Your task to perform on an android device: What's on my calendar today? Image 0: 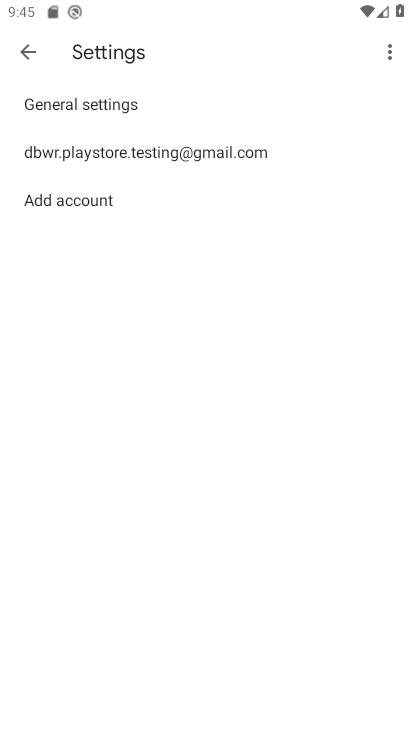
Step 0: press back button
Your task to perform on an android device: What's on my calendar today? Image 1: 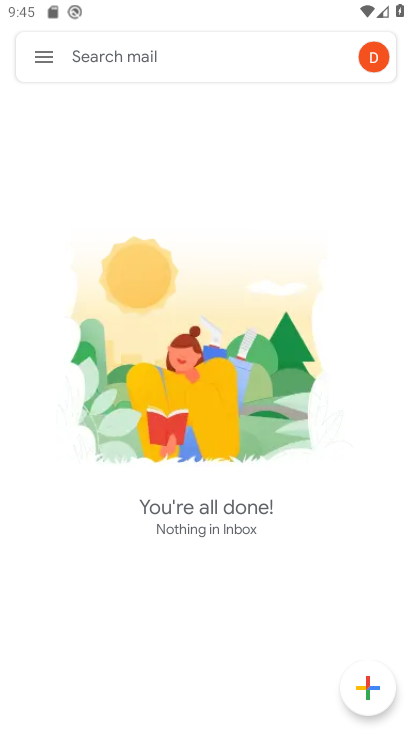
Step 1: press back button
Your task to perform on an android device: What's on my calendar today? Image 2: 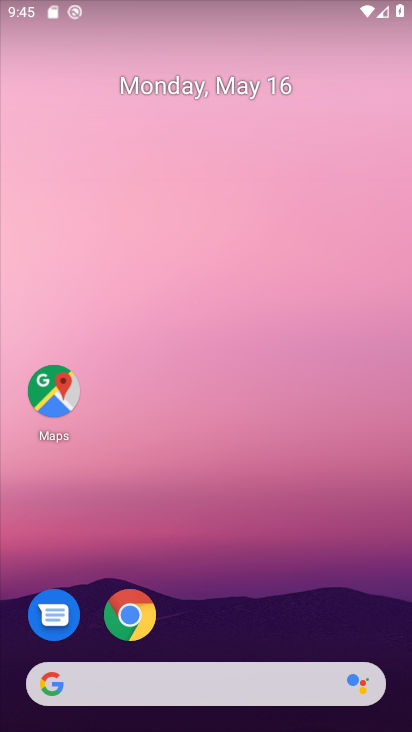
Step 2: drag from (227, 494) to (231, 40)
Your task to perform on an android device: What's on my calendar today? Image 3: 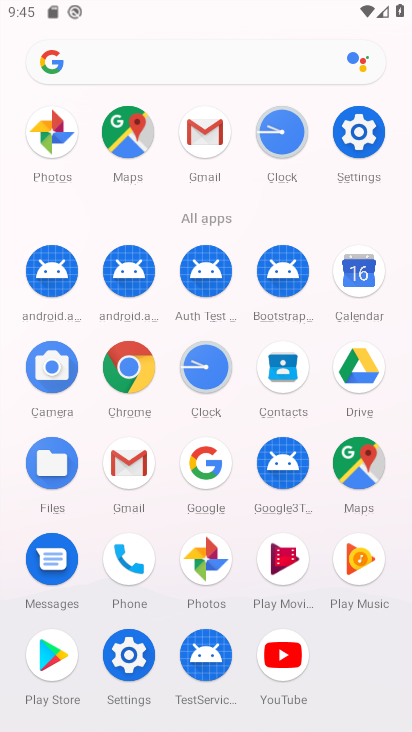
Step 3: drag from (7, 580) to (30, 253)
Your task to perform on an android device: What's on my calendar today? Image 4: 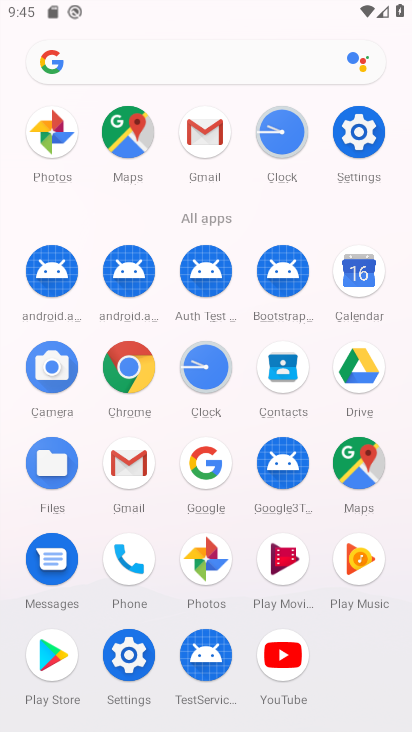
Step 4: click (355, 260)
Your task to perform on an android device: What's on my calendar today? Image 5: 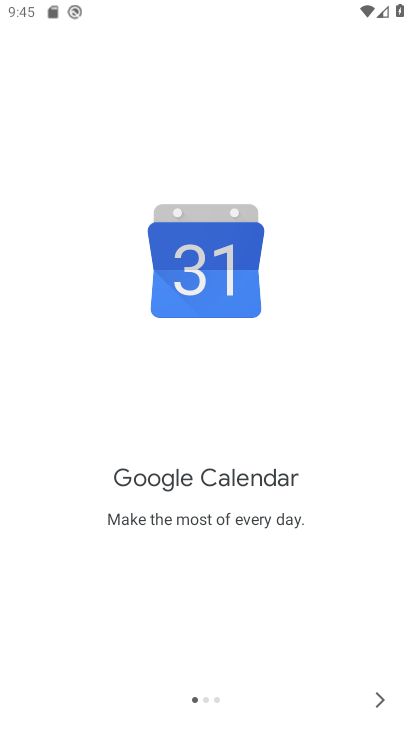
Step 5: click (370, 690)
Your task to perform on an android device: What's on my calendar today? Image 6: 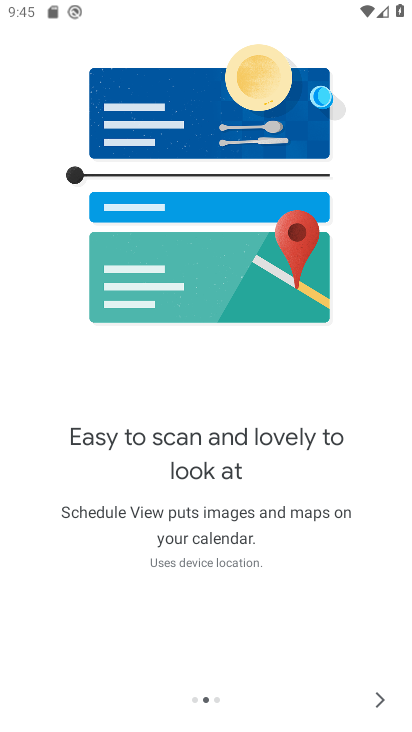
Step 6: click (377, 695)
Your task to perform on an android device: What's on my calendar today? Image 7: 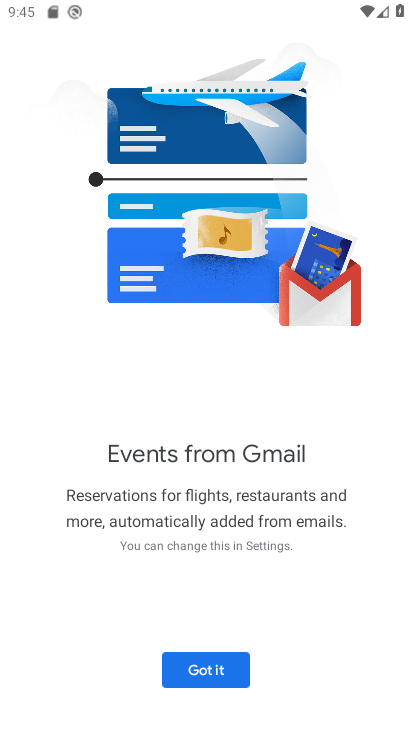
Step 7: click (205, 673)
Your task to perform on an android device: What's on my calendar today? Image 8: 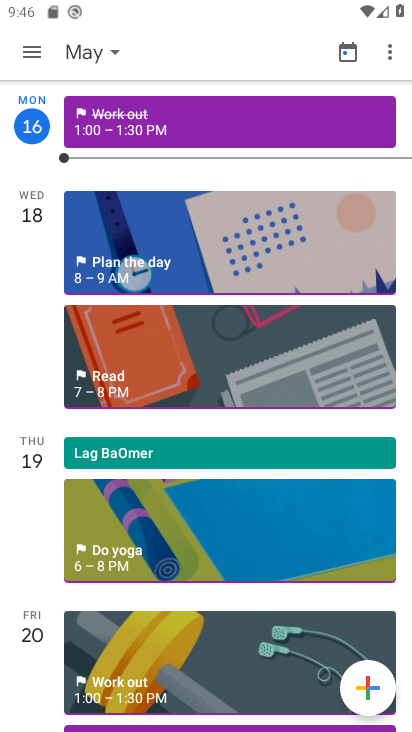
Step 8: drag from (241, 275) to (241, 488)
Your task to perform on an android device: What's on my calendar today? Image 9: 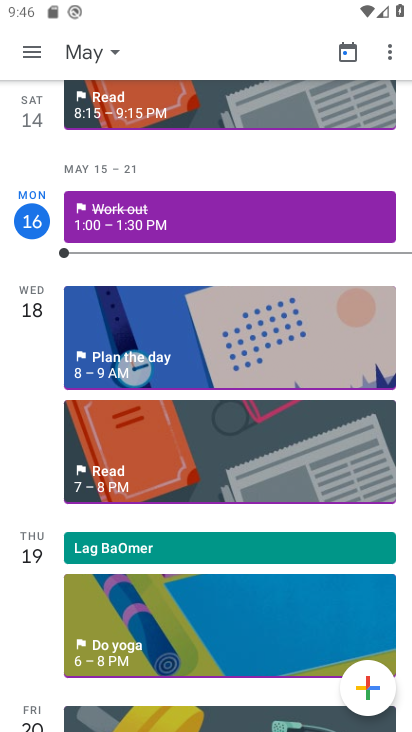
Step 9: click (349, 48)
Your task to perform on an android device: What's on my calendar today? Image 10: 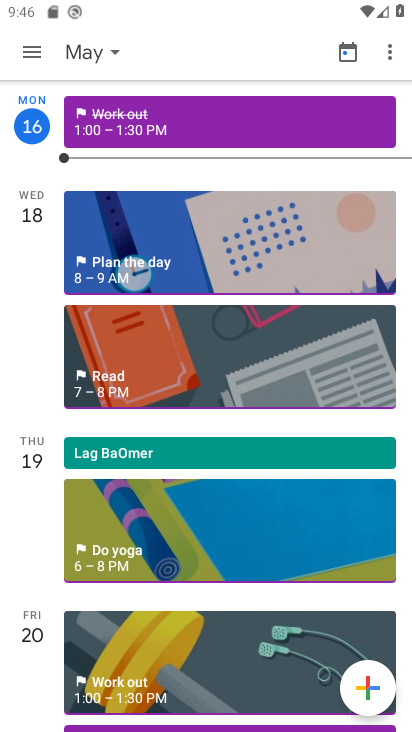
Step 10: task complete